Your task to perform on an android device: set the timer Image 0: 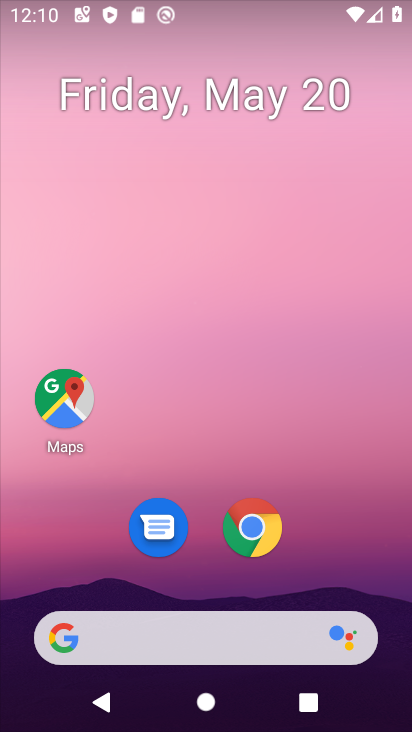
Step 0: drag from (353, 587) to (363, 10)
Your task to perform on an android device: set the timer Image 1: 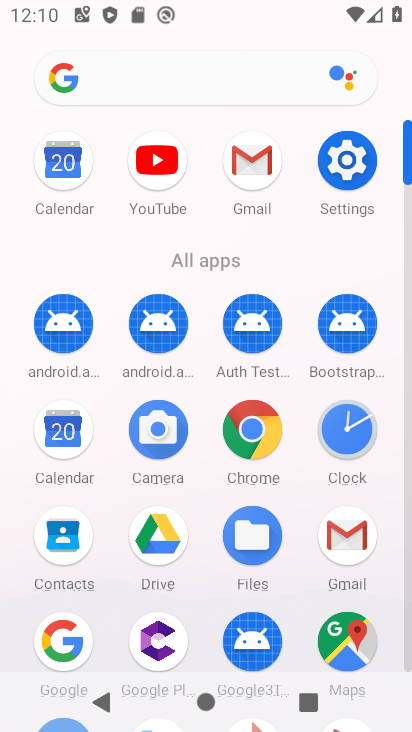
Step 1: click (341, 442)
Your task to perform on an android device: set the timer Image 2: 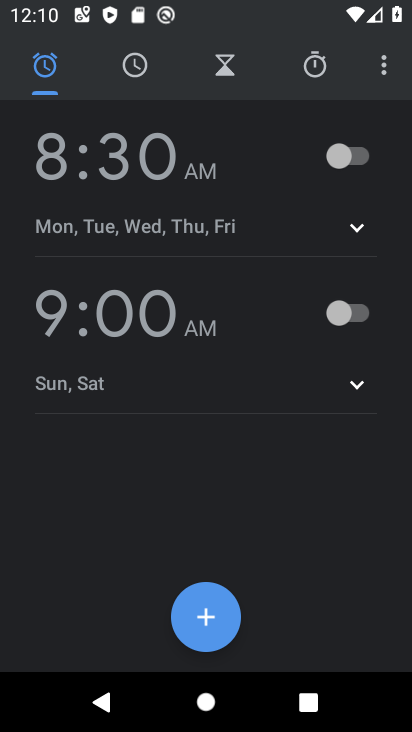
Step 2: click (213, 59)
Your task to perform on an android device: set the timer Image 3: 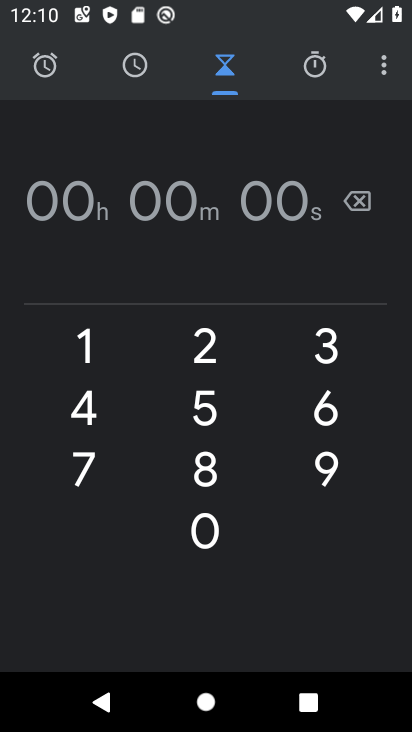
Step 3: click (212, 402)
Your task to perform on an android device: set the timer Image 4: 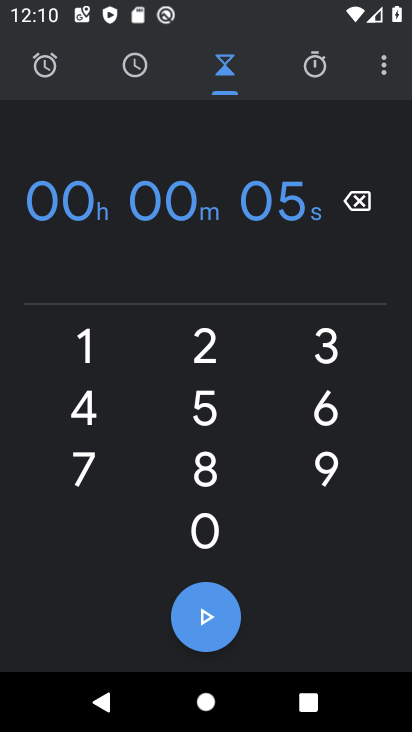
Step 4: click (214, 609)
Your task to perform on an android device: set the timer Image 5: 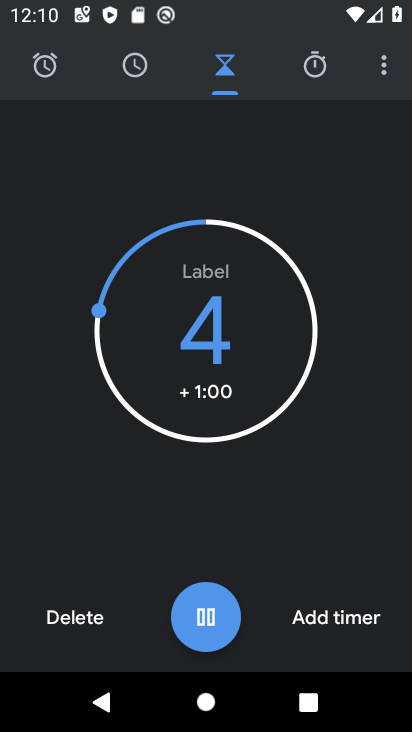
Step 5: task complete